Your task to perform on an android device: Open maps Image 0: 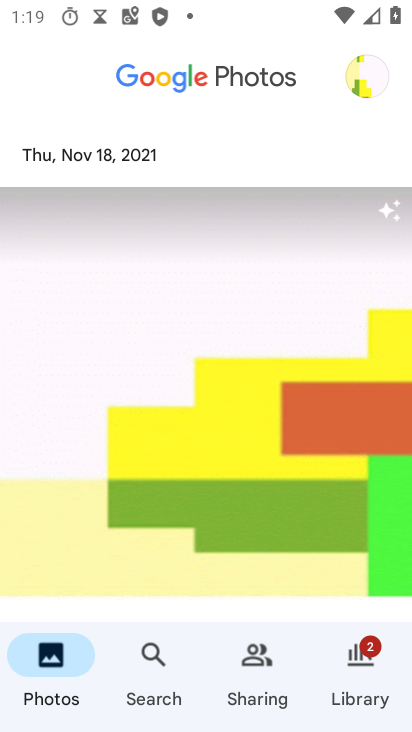
Step 0: press home button
Your task to perform on an android device: Open maps Image 1: 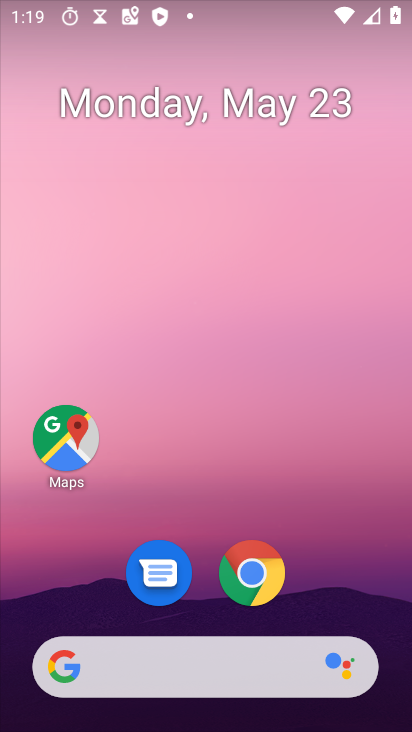
Step 1: click (60, 447)
Your task to perform on an android device: Open maps Image 2: 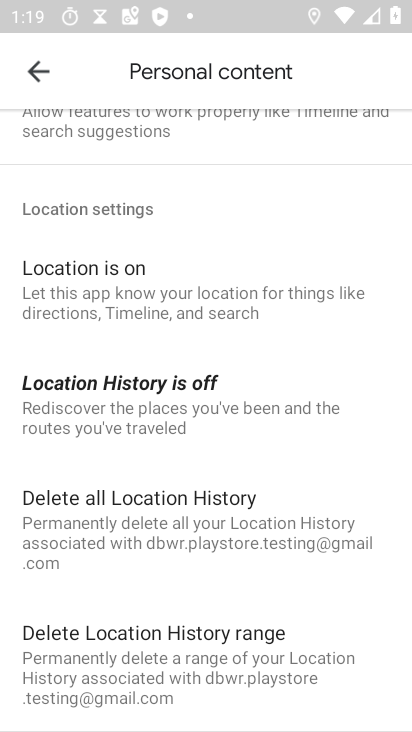
Step 2: click (40, 72)
Your task to perform on an android device: Open maps Image 3: 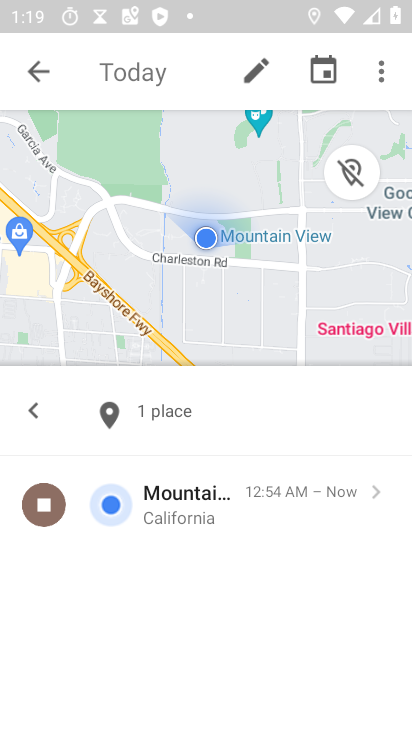
Step 3: click (40, 72)
Your task to perform on an android device: Open maps Image 4: 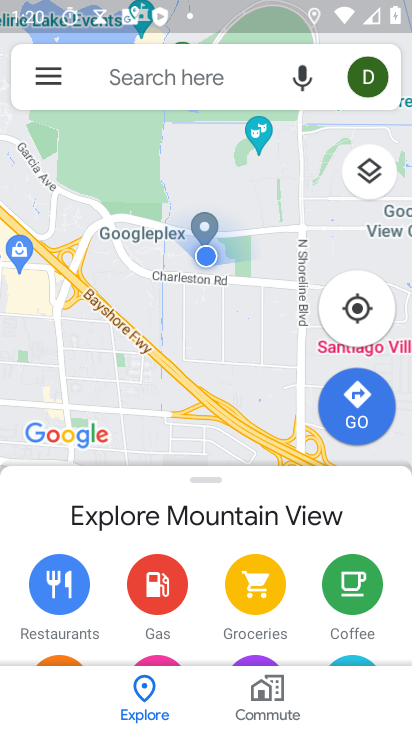
Step 4: task complete